Your task to perform on an android device: show emergency info Image 0: 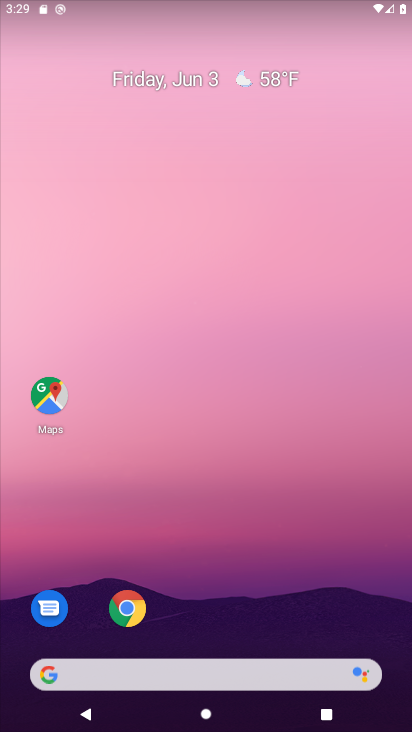
Step 0: drag from (241, 665) to (171, 139)
Your task to perform on an android device: show emergency info Image 1: 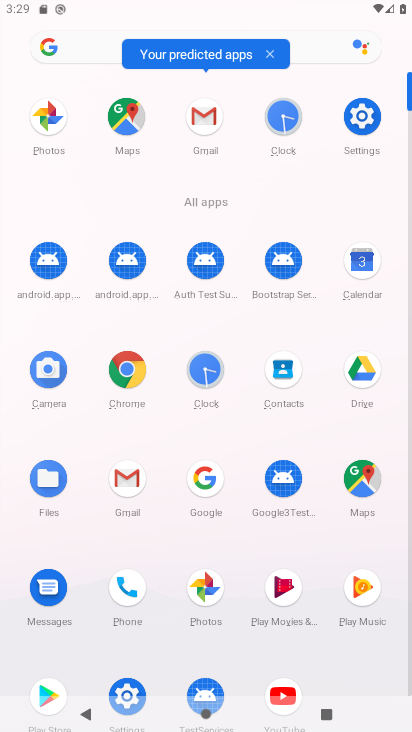
Step 1: drag from (86, 654) to (110, 352)
Your task to perform on an android device: show emergency info Image 2: 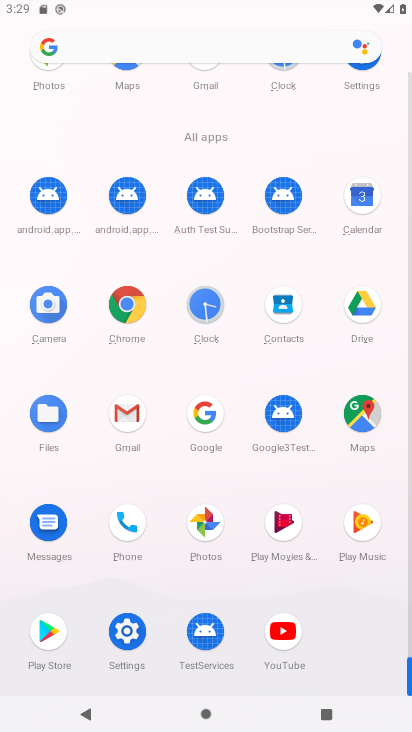
Step 2: click (130, 637)
Your task to perform on an android device: show emergency info Image 3: 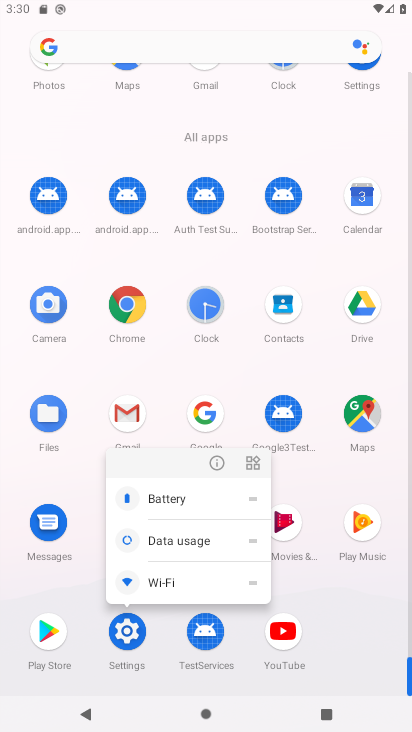
Step 3: click (121, 636)
Your task to perform on an android device: show emergency info Image 4: 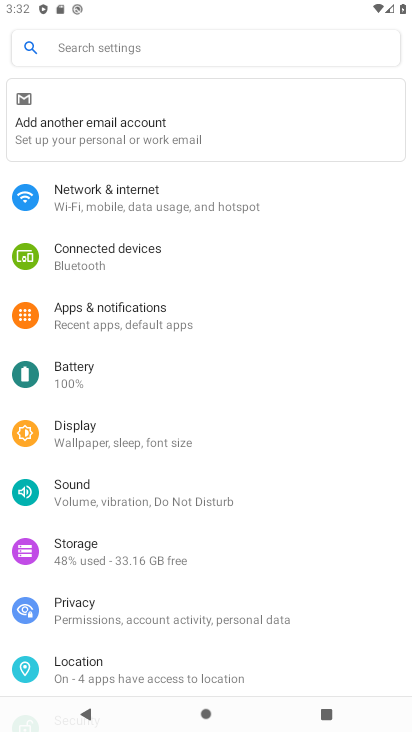
Step 4: drag from (118, 631) to (126, 256)
Your task to perform on an android device: show emergency info Image 5: 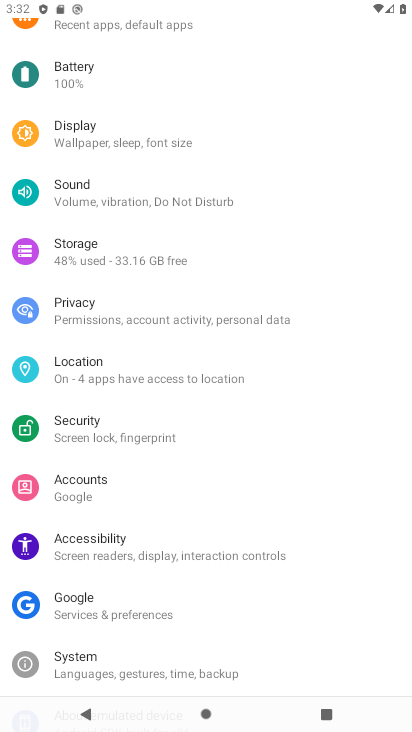
Step 5: drag from (121, 668) to (119, 249)
Your task to perform on an android device: show emergency info Image 6: 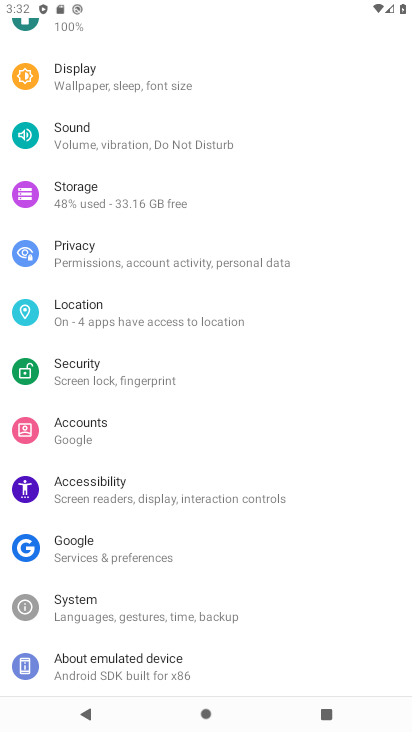
Step 6: click (126, 667)
Your task to perform on an android device: show emergency info Image 7: 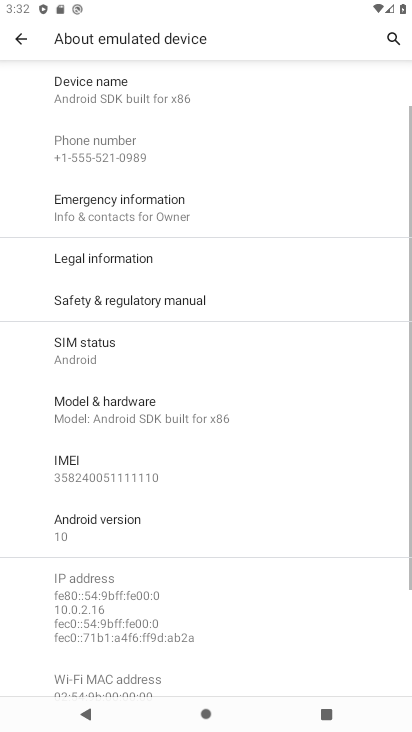
Step 7: click (131, 211)
Your task to perform on an android device: show emergency info Image 8: 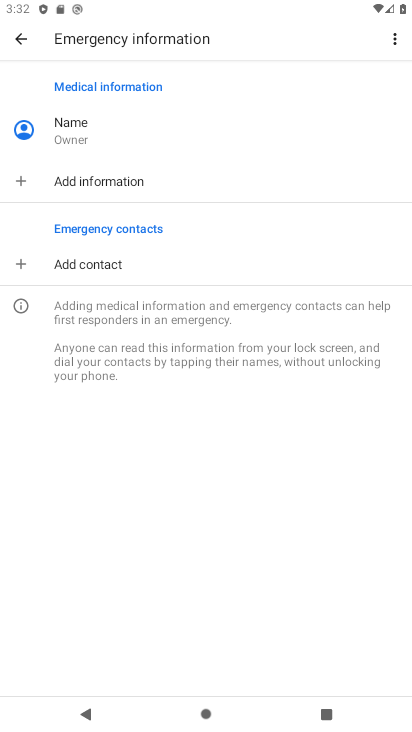
Step 8: task complete